Your task to perform on an android device: toggle airplane mode Image 0: 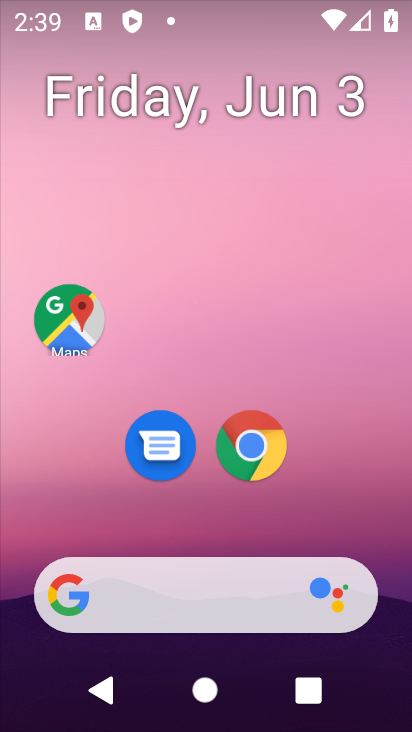
Step 0: drag from (222, 408) to (221, 730)
Your task to perform on an android device: toggle airplane mode Image 1: 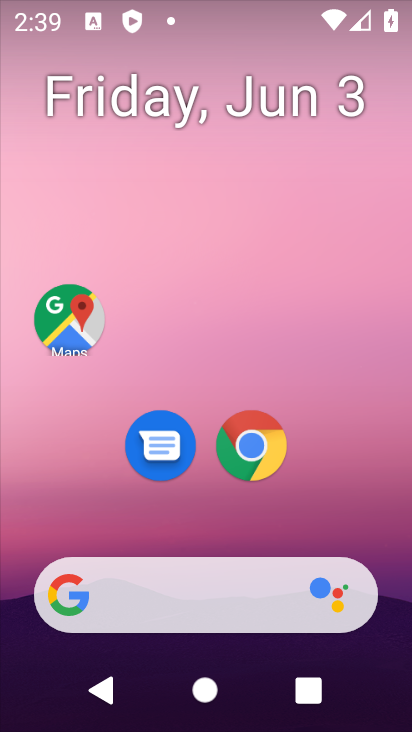
Step 1: drag from (245, 402) to (264, 730)
Your task to perform on an android device: toggle airplane mode Image 2: 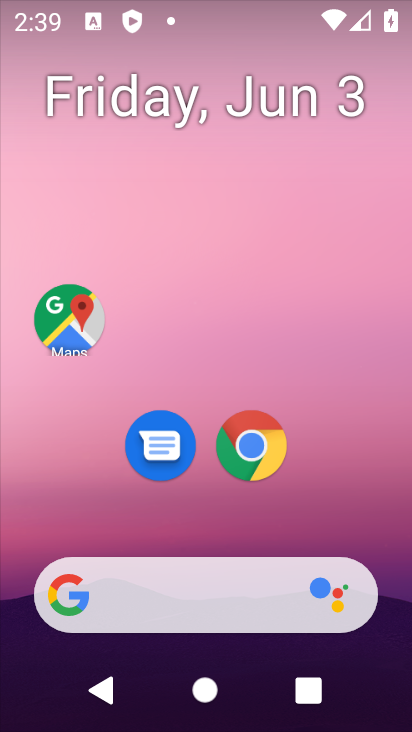
Step 2: drag from (242, 63) to (131, 698)
Your task to perform on an android device: toggle airplane mode Image 3: 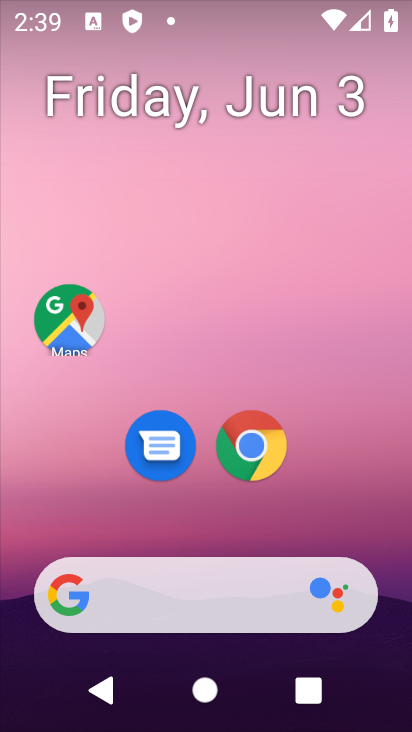
Step 3: drag from (260, 11) to (226, 111)
Your task to perform on an android device: toggle airplane mode Image 4: 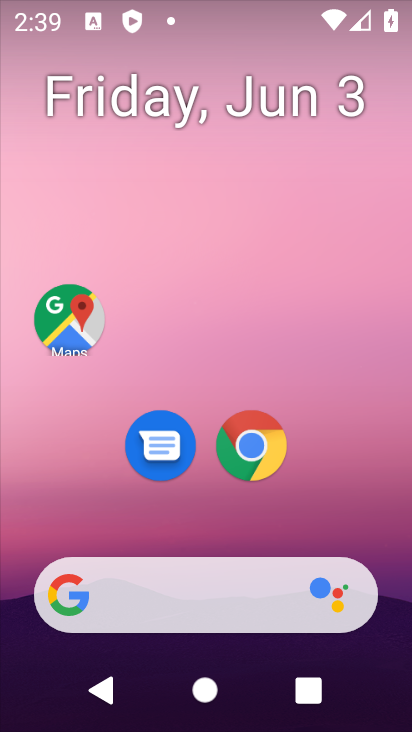
Step 4: drag from (204, 465) to (259, 20)
Your task to perform on an android device: toggle airplane mode Image 5: 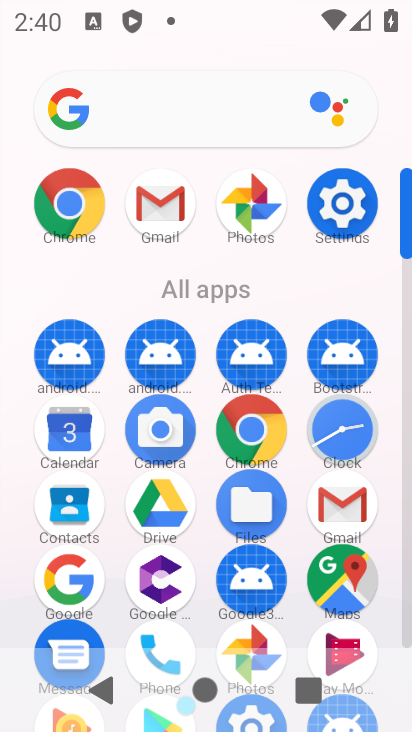
Step 5: drag from (206, 10) to (215, 586)
Your task to perform on an android device: toggle airplane mode Image 6: 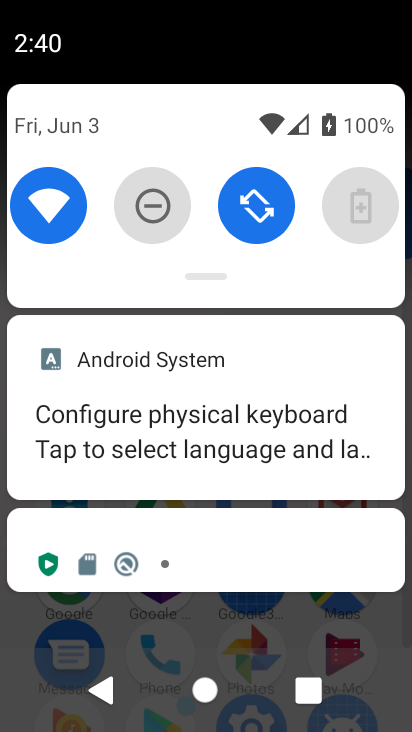
Step 6: drag from (205, 166) to (222, 665)
Your task to perform on an android device: toggle airplane mode Image 7: 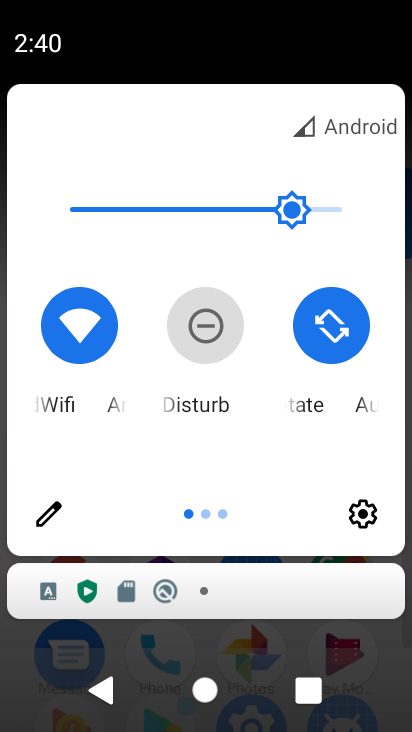
Step 7: drag from (332, 454) to (54, 451)
Your task to perform on an android device: toggle airplane mode Image 8: 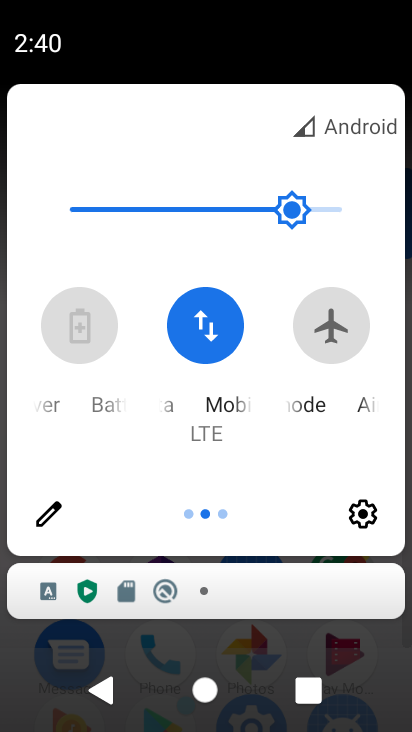
Step 8: click (337, 339)
Your task to perform on an android device: toggle airplane mode Image 9: 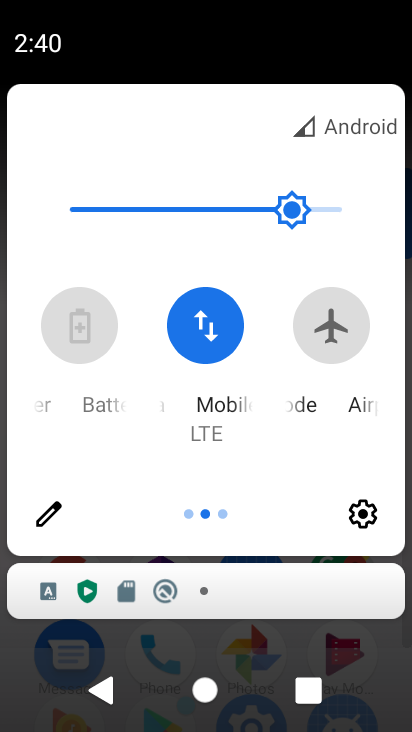
Step 9: click (337, 339)
Your task to perform on an android device: toggle airplane mode Image 10: 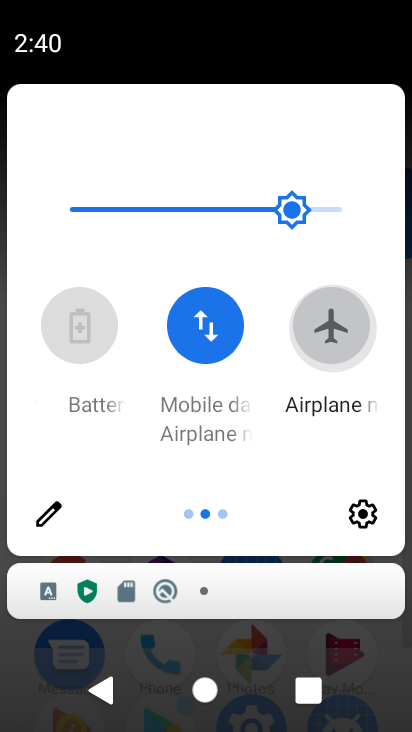
Step 10: click (337, 339)
Your task to perform on an android device: toggle airplane mode Image 11: 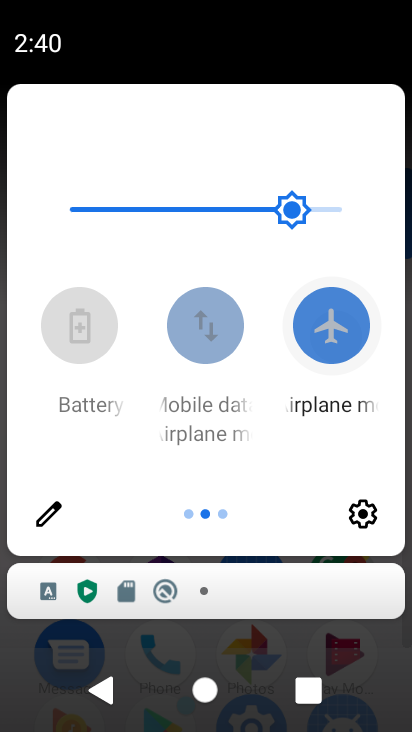
Step 11: click (337, 339)
Your task to perform on an android device: toggle airplane mode Image 12: 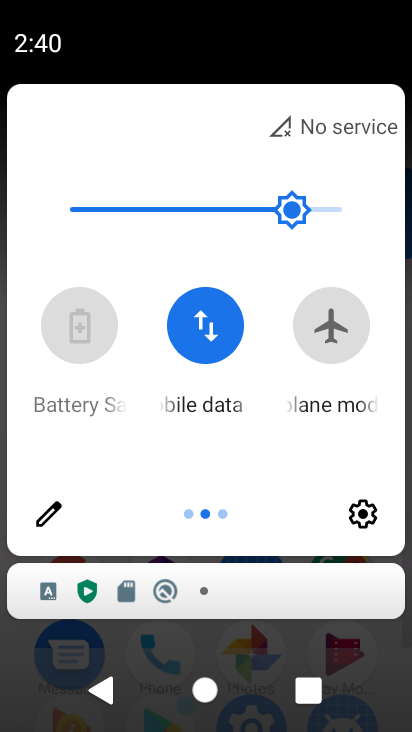
Step 12: click (337, 339)
Your task to perform on an android device: toggle airplane mode Image 13: 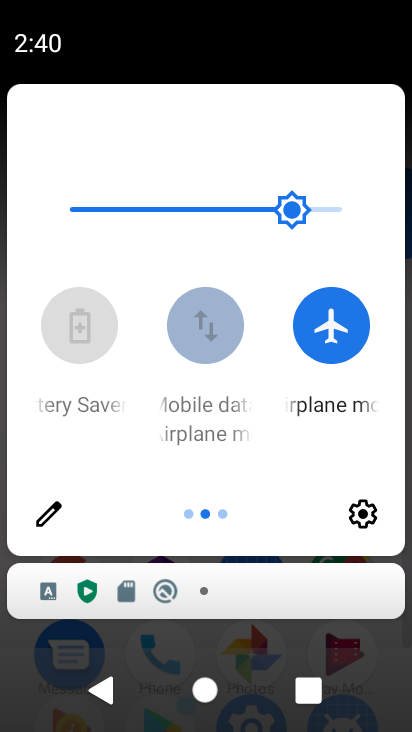
Step 13: click (337, 339)
Your task to perform on an android device: toggle airplane mode Image 14: 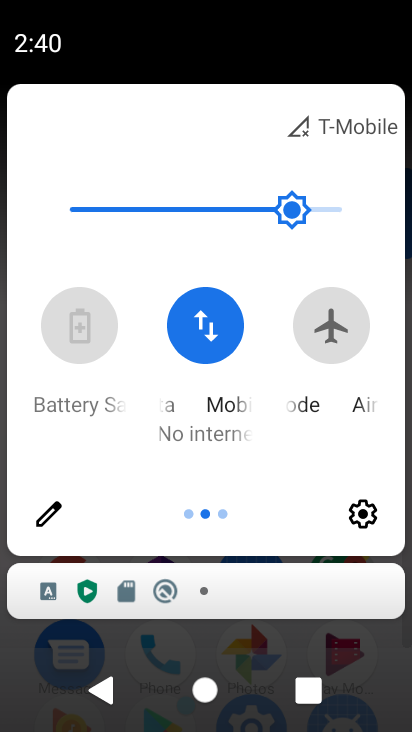
Step 14: click (336, 346)
Your task to perform on an android device: toggle airplane mode Image 15: 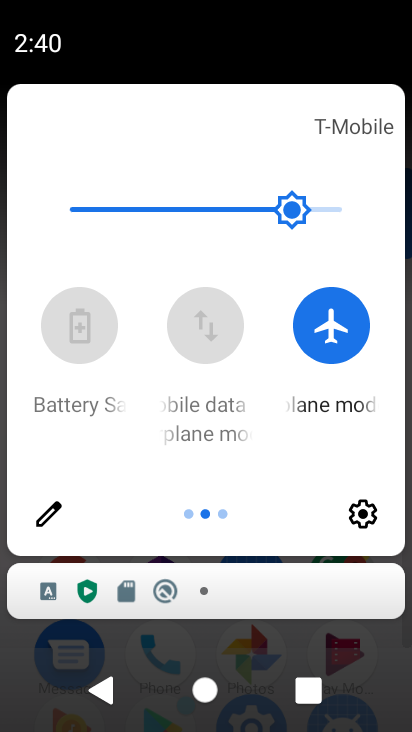
Step 15: click (336, 346)
Your task to perform on an android device: toggle airplane mode Image 16: 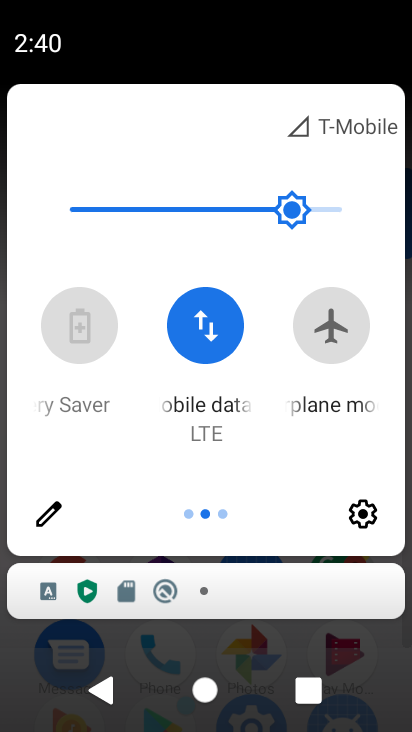
Step 16: task complete